Your task to perform on an android device: Search for pizza restaurants on Maps Image 0: 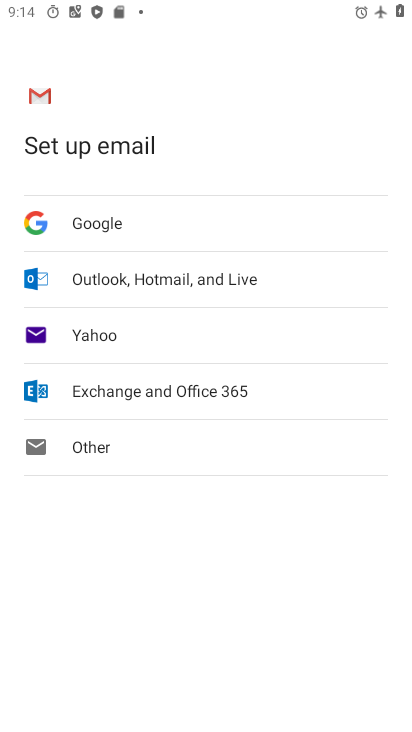
Step 0: press home button
Your task to perform on an android device: Search for pizza restaurants on Maps Image 1: 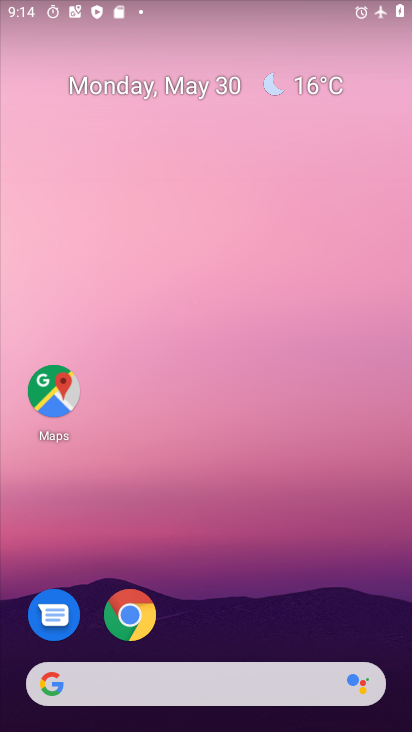
Step 1: drag from (343, 575) to (365, 47)
Your task to perform on an android device: Search for pizza restaurants on Maps Image 2: 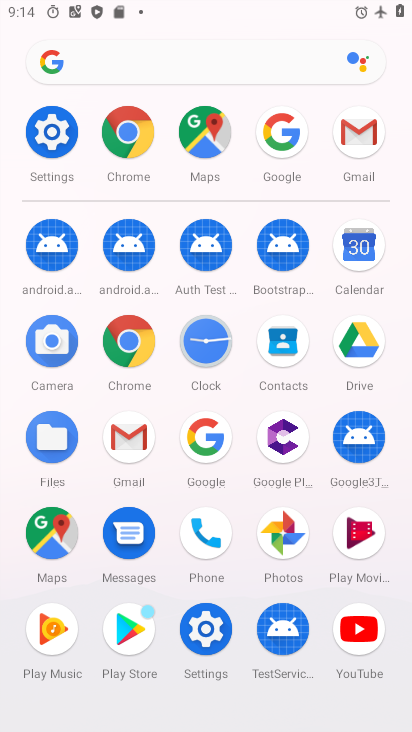
Step 2: click (210, 136)
Your task to perform on an android device: Search for pizza restaurants on Maps Image 3: 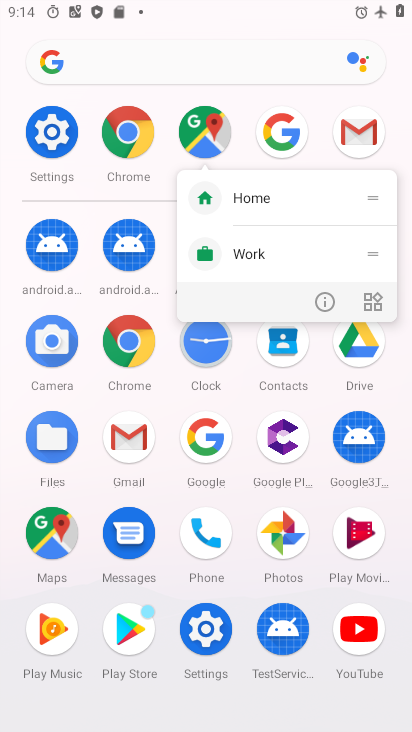
Step 3: click (210, 136)
Your task to perform on an android device: Search for pizza restaurants on Maps Image 4: 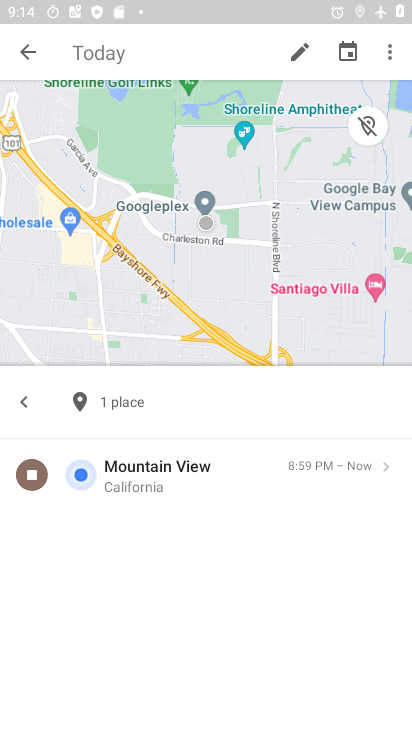
Step 4: click (24, 39)
Your task to perform on an android device: Search for pizza restaurants on Maps Image 5: 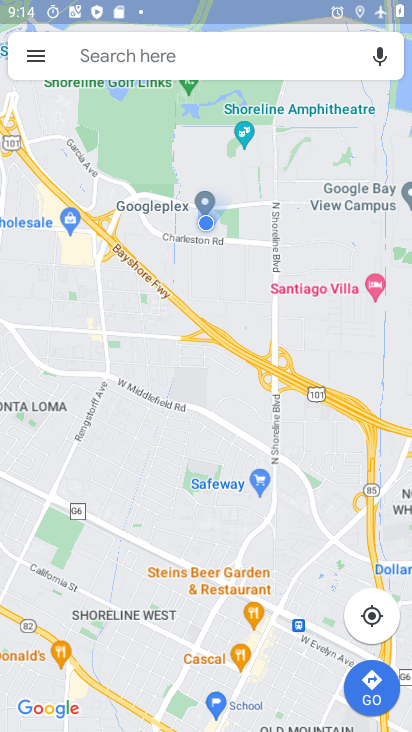
Step 5: click (237, 65)
Your task to perform on an android device: Search for pizza restaurants on Maps Image 6: 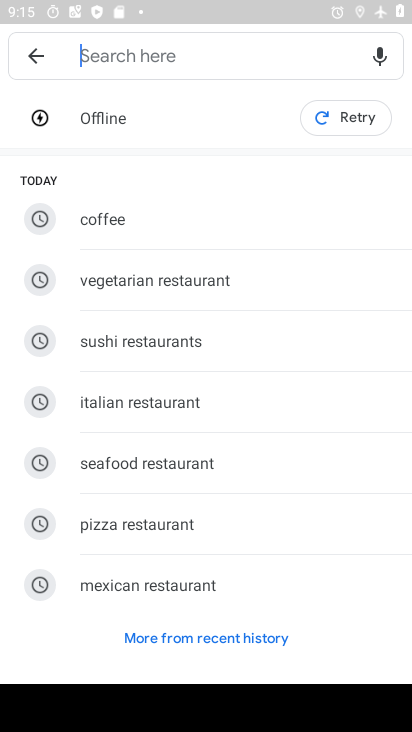
Step 6: click (159, 511)
Your task to perform on an android device: Search for pizza restaurants on Maps Image 7: 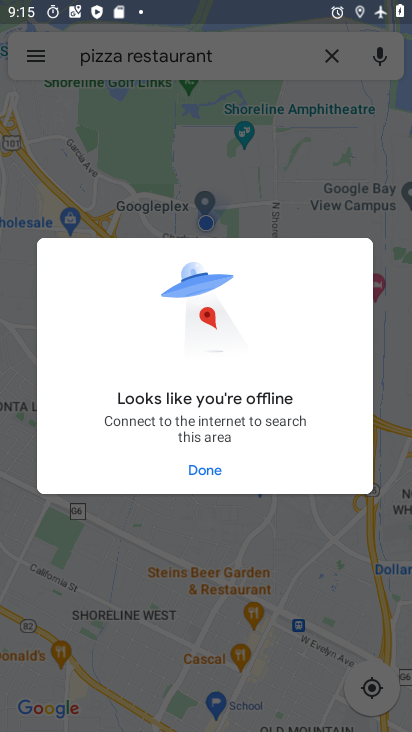
Step 7: task complete